Your task to perform on an android device: toggle improve location accuracy Image 0: 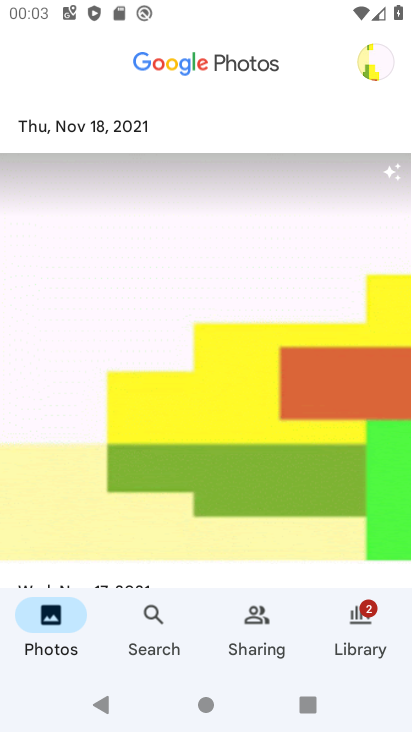
Step 0: drag from (266, 540) to (345, 139)
Your task to perform on an android device: toggle improve location accuracy Image 1: 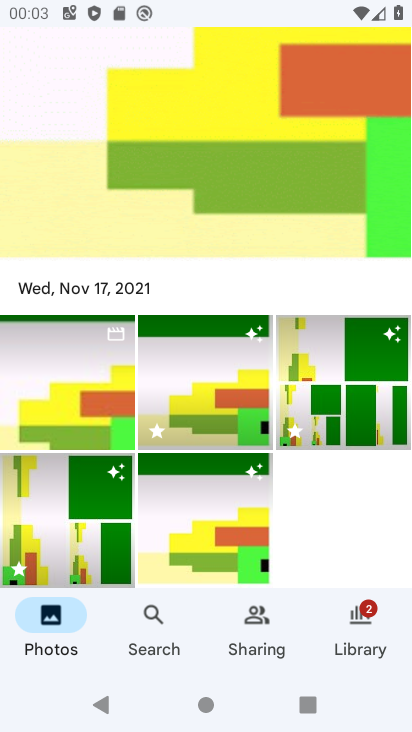
Step 1: drag from (185, 474) to (220, 174)
Your task to perform on an android device: toggle improve location accuracy Image 2: 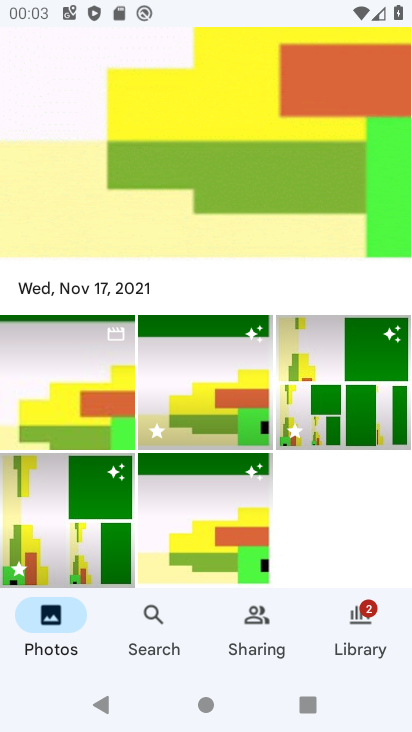
Step 2: drag from (321, 540) to (308, 365)
Your task to perform on an android device: toggle improve location accuracy Image 3: 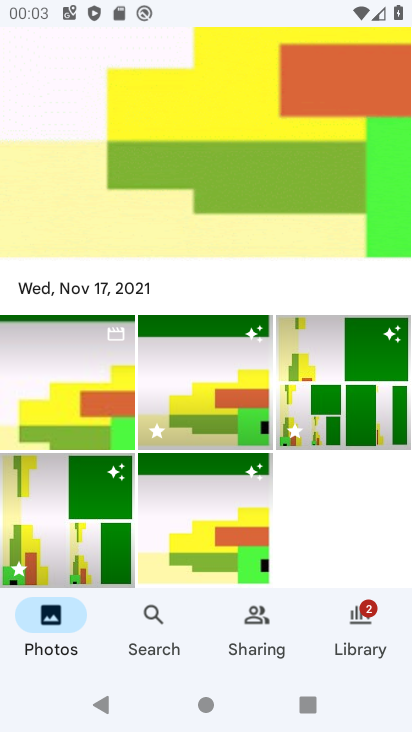
Step 3: drag from (275, 579) to (268, 170)
Your task to perform on an android device: toggle improve location accuracy Image 4: 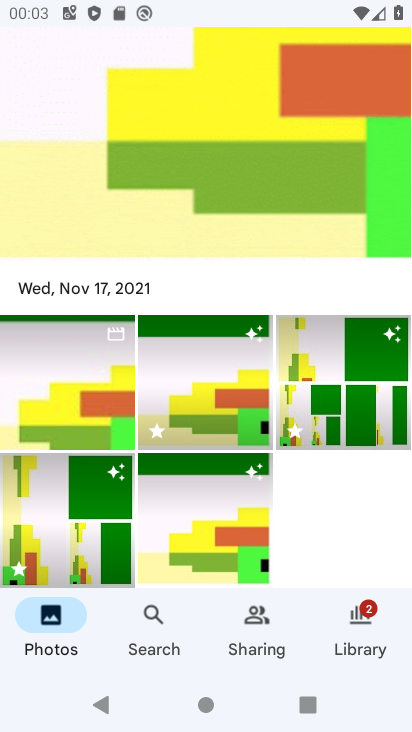
Step 4: press home button
Your task to perform on an android device: toggle improve location accuracy Image 5: 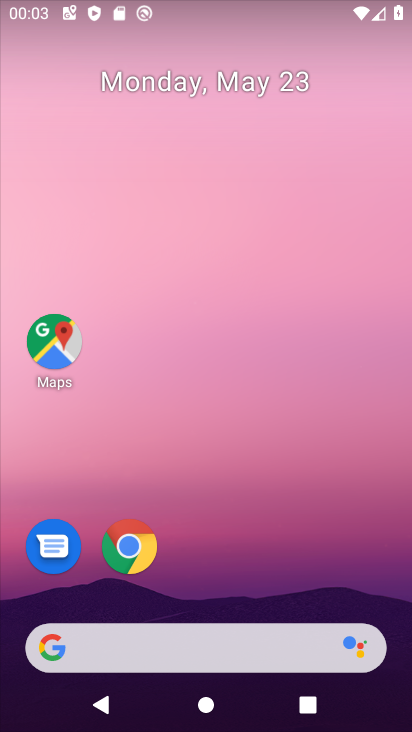
Step 5: drag from (207, 603) to (249, 108)
Your task to perform on an android device: toggle improve location accuracy Image 6: 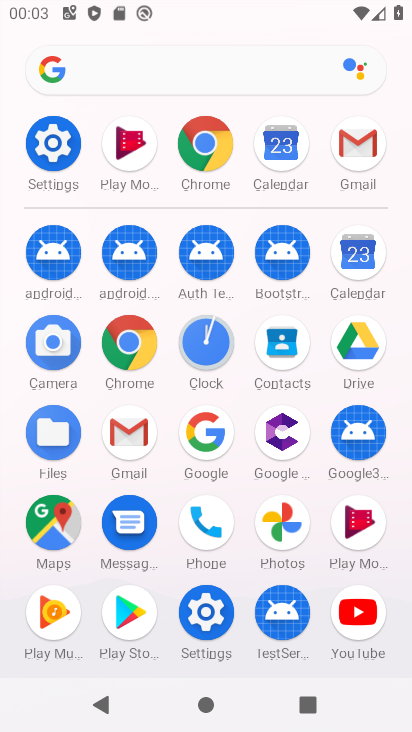
Step 6: click (56, 149)
Your task to perform on an android device: toggle improve location accuracy Image 7: 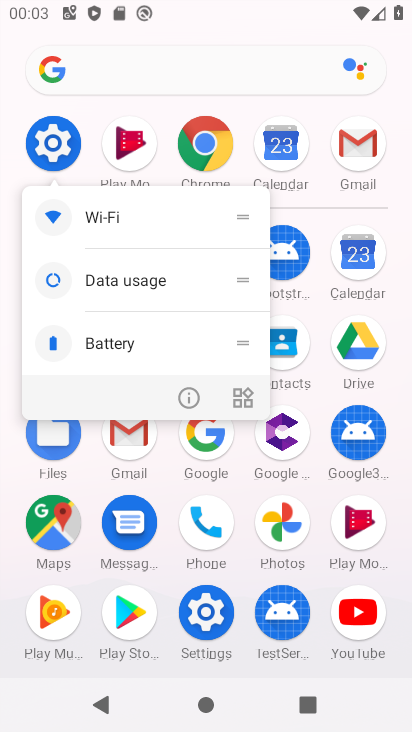
Step 7: click (185, 396)
Your task to perform on an android device: toggle improve location accuracy Image 8: 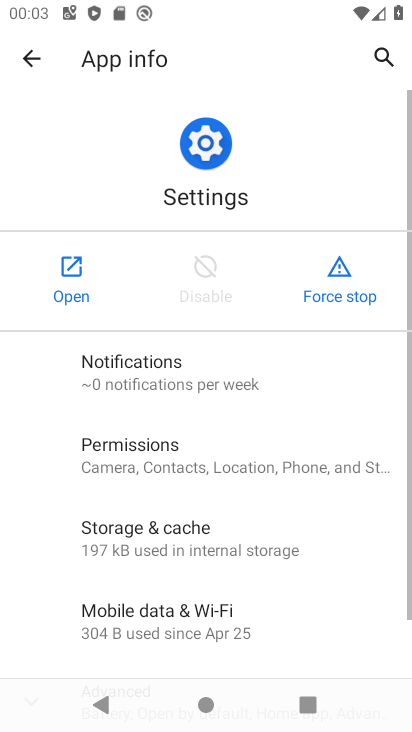
Step 8: click (52, 285)
Your task to perform on an android device: toggle improve location accuracy Image 9: 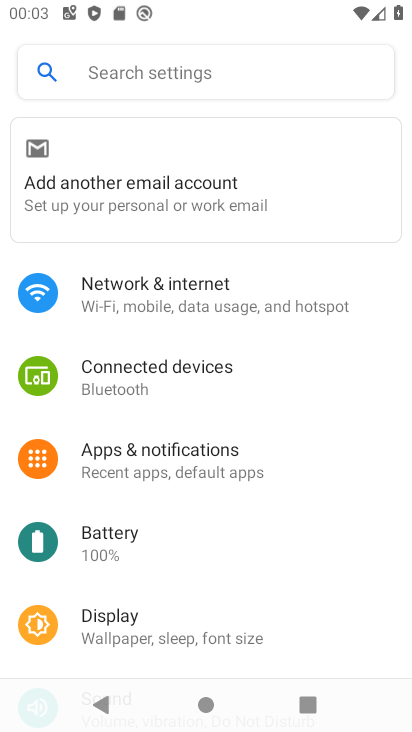
Step 9: drag from (212, 542) to (322, 87)
Your task to perform on an android device: toggle improve location accuracy Image 10: 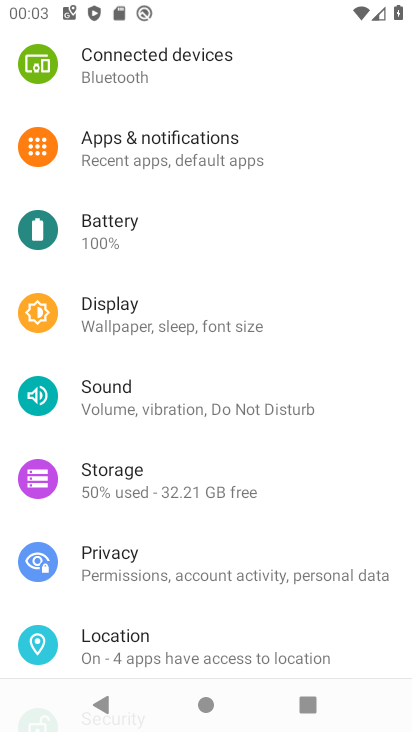
Step 10: drag from (193, 513) to (246, 153)
Your task to perform on an android device: toggle improve location accuracy Image 11: 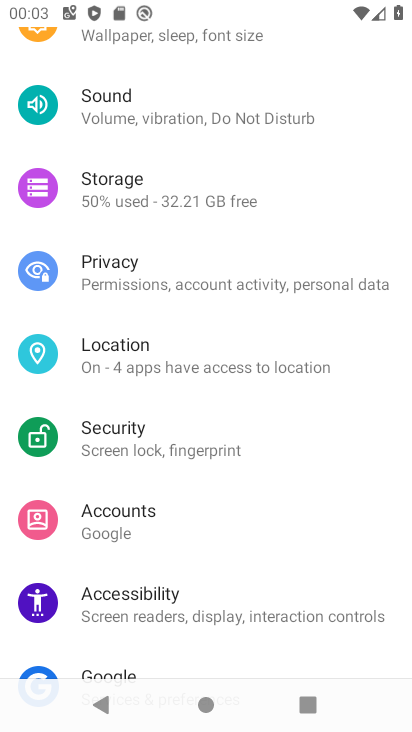
Step 11: drag from (248, 134) to (260, 601)
Your task to perform on an android device: toggle improve location accuracy Image 12: 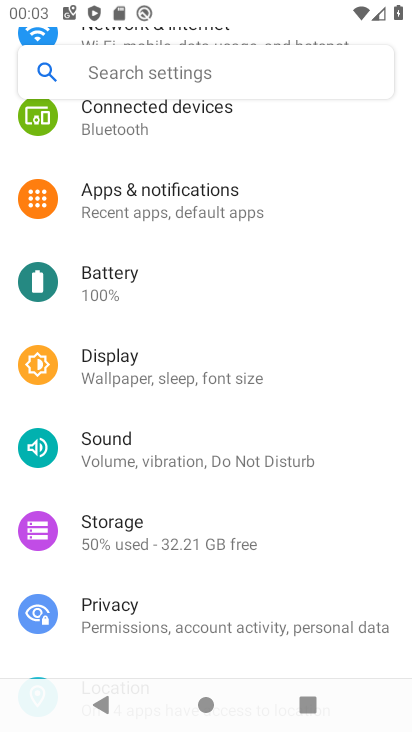
Step 12: drag from (239, 596) to (304, 81)
Your task to perform on an android device: toggle improve location accuracy Image 13: 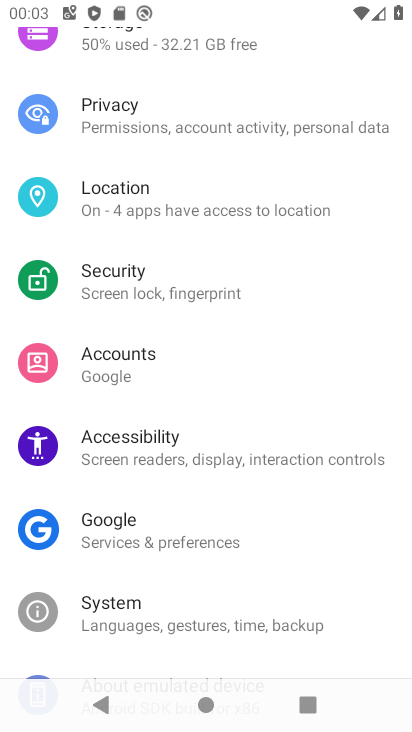
Step 13: click (156, 177)
Your task to perform on an android device: toggle improve location accuracy Image 14: 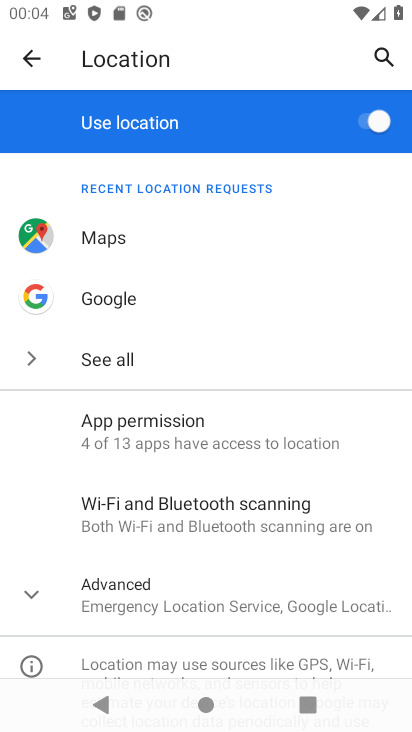
Step 14: drag from (261, 604) to (310, 154)
Your task to perform on an android device: toggle improve location accuracy Image 15: 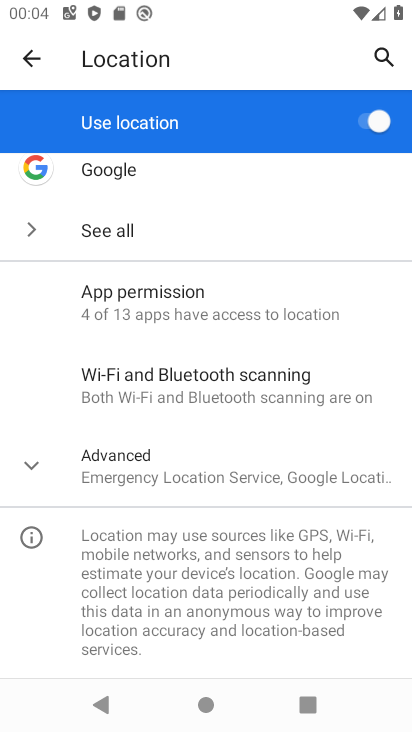
Step 15: click (168, 464)
Your task to perform on an android device: toggle improve location accuracy Image 16: 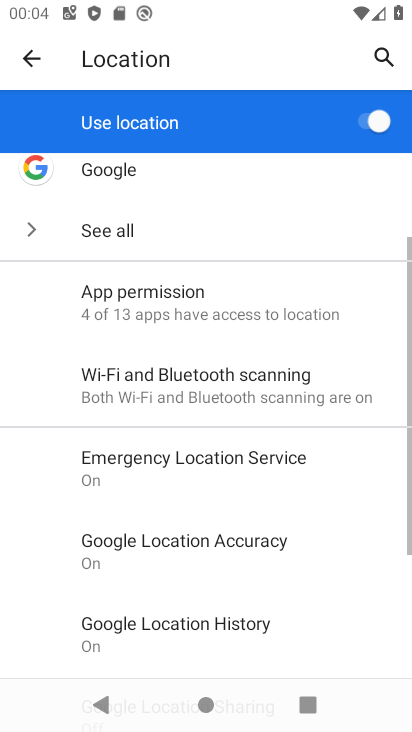
Step 16: drag from (207, 640) to (306, 274)
Your task to perform on an android device: toggle improve location accuracy Image 17: 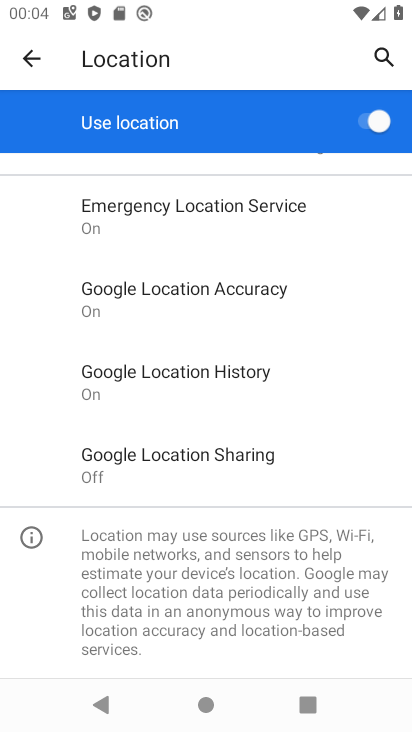
Step 17: click (238, 315)
Your task to perform on an android device: toggle improve location accuracy Image 18: 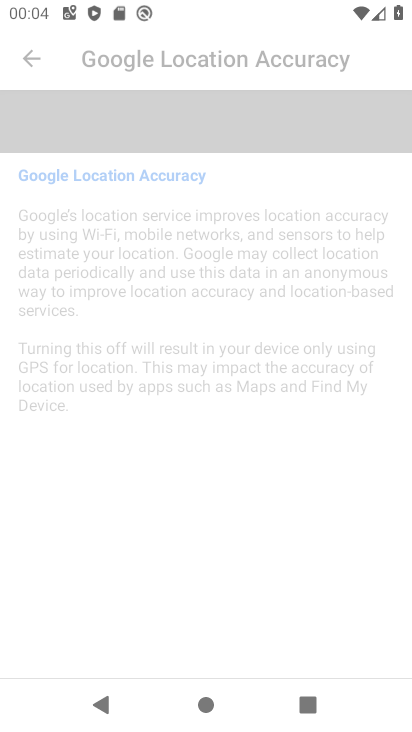
Step 18: drag from (238, 566) to (327, 125)
Your task to perform on an android device: toggle improve location accuracy Image 19: 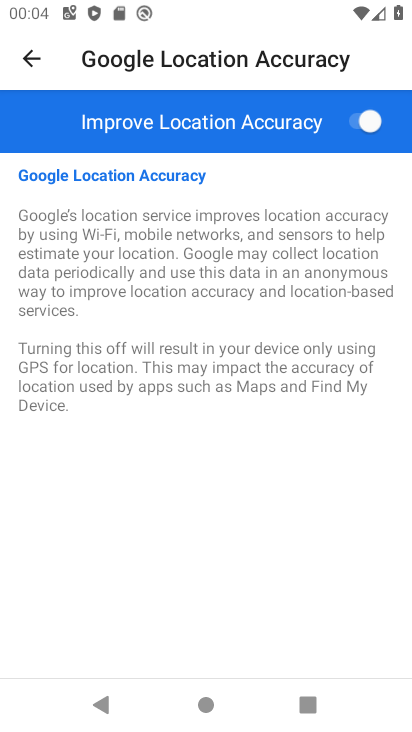
Step 19: click (359, 122)
Your task to perform on an android device: toggle improve location accuracy Image 20: 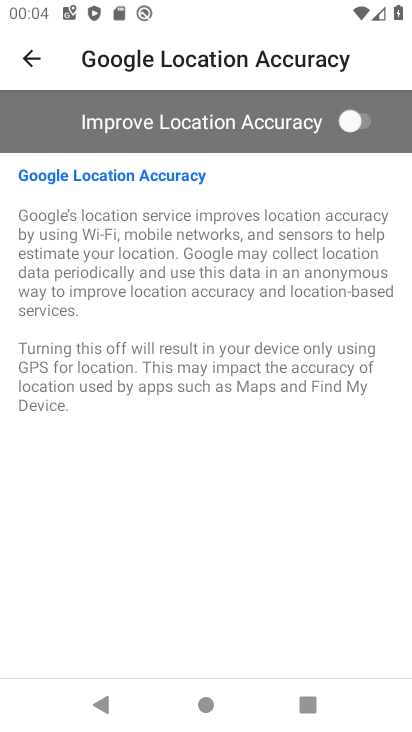
Step 20: task complete